Your task to perform on an android device: delete browsing data in the chrome app Image 0: 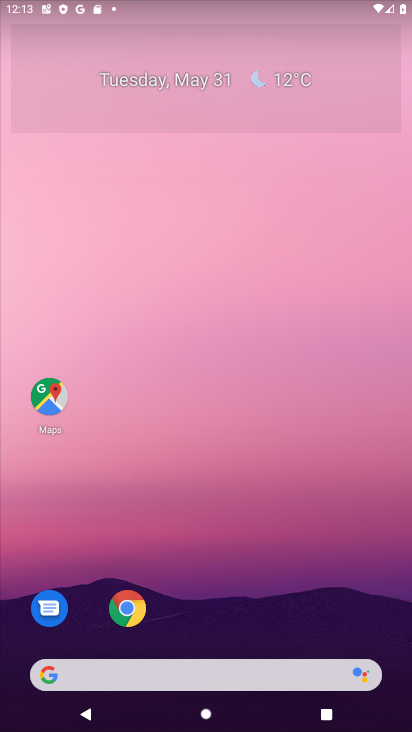
Step 0: click (127, 612)
Your task to perform on an android device: delete browsing data in the chrome app Image 1: 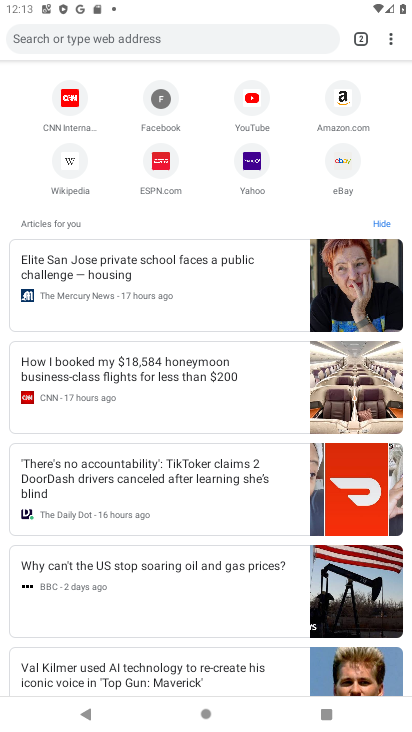
Step 1: click (384, 45)
Your task to perform on an android device: delete browsing data in the chrome app Image 2: 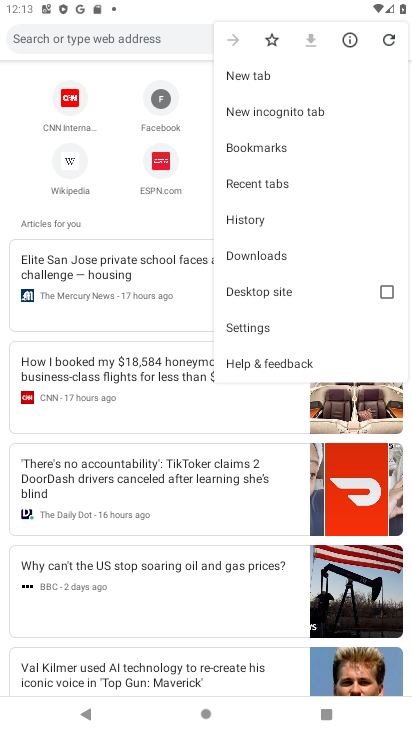
Step 2: click (265, 215)
Your task to perform on an android device: delete browsing data in the chrome app Image 3: 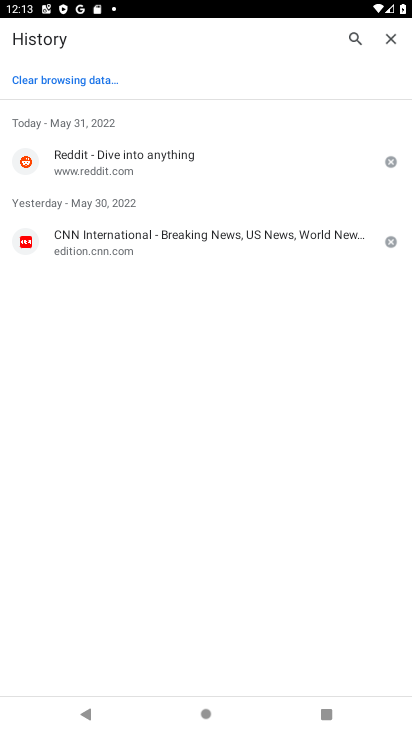
Step 3: click (103, 84)
Your task to perform on an android device: delete browsing data in the chrome app Image 4: 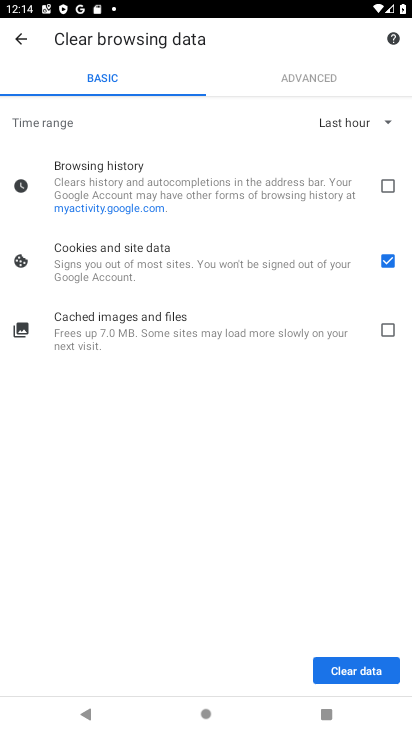
Step 4: click (389, 183)
Your task to perform on an android device: delete browsing data in the chrome app Image 5: 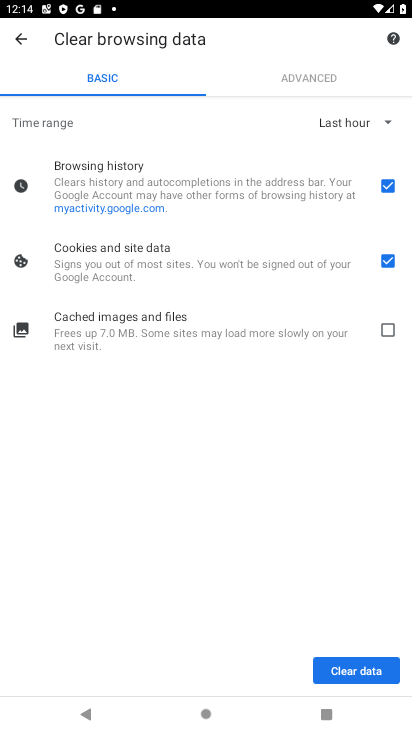
Step 5: click (387, 262)
Your task to perform on an android device: delete browsing data in the chrome app Image 6: 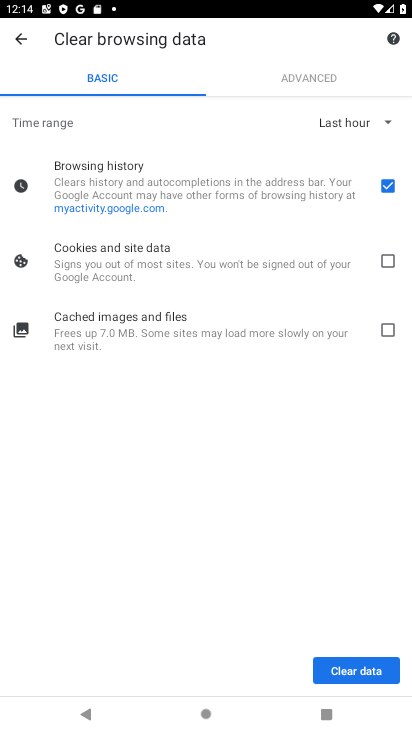
Step 6: click (346, 677)
Your task to perform on an android device: delete browsing data in the chrome app Image 7: 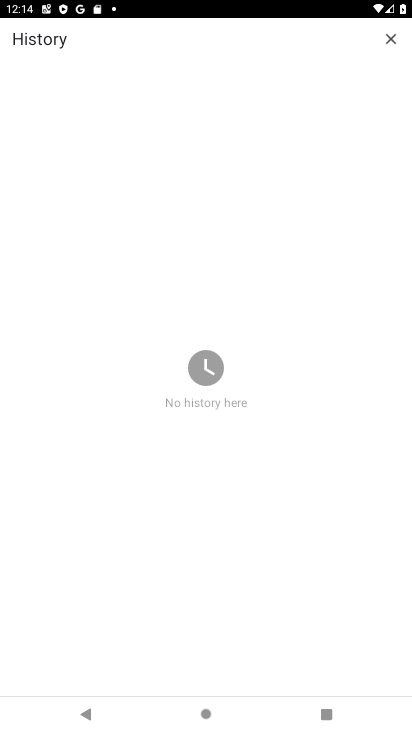
Step 7: task complete